Your task to perform on an android device: toggle airplane mode Image 0: 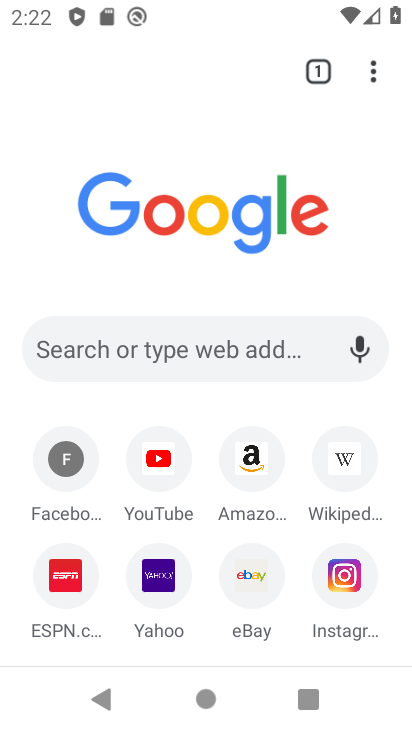
Step 0: press back button
Your task to perform on an android device: toggle airplane mode Image 1: 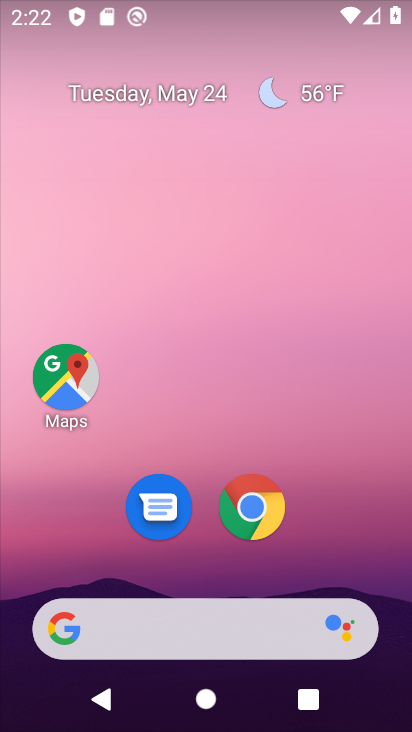
Step 1: drag from (78, 587) to (211, 120)
Your task to perform on an android device: toggle airplane mode Image 2: 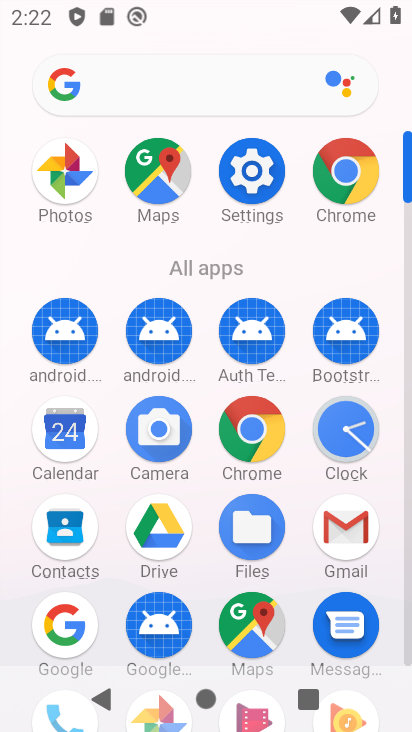
Step 2: drag from (162, 606) to (225, 432)
Your task to perform on an android device: toggle airplane mode Image 3: 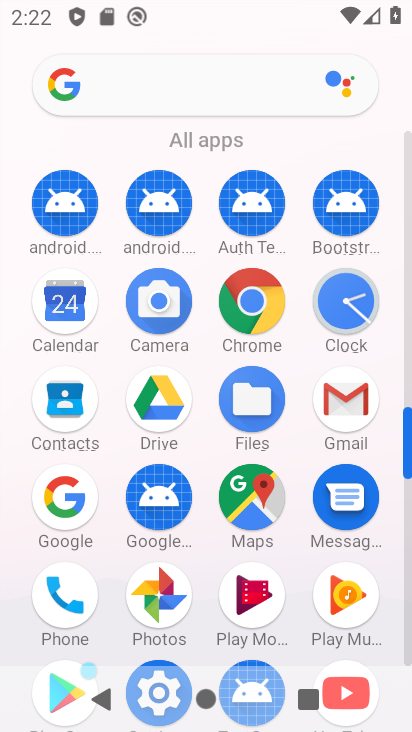
Step 3: click (148, 666)
Your task to perform on an android device: toggle airplane mode Image 4: 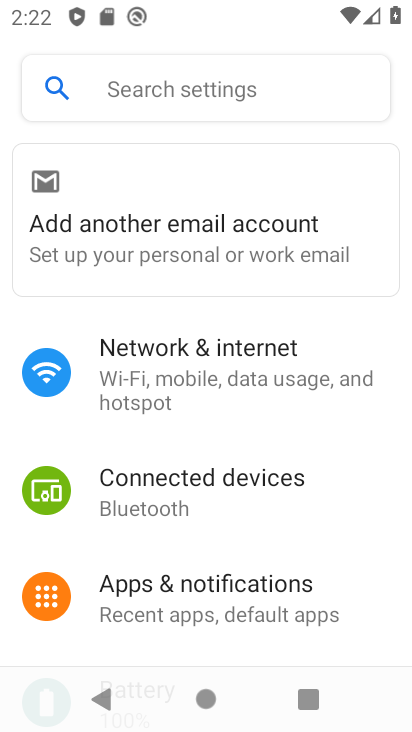
Step 4: click (245, 365)
Your task to perform on an android device: toggle airplane mode Image 5: 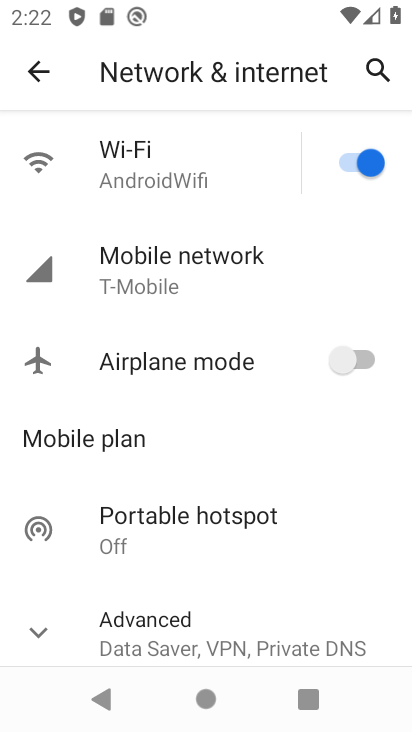
Step 5: click (382, 357)
Your task to perform on an android device: toggle airplane mode Image 6: 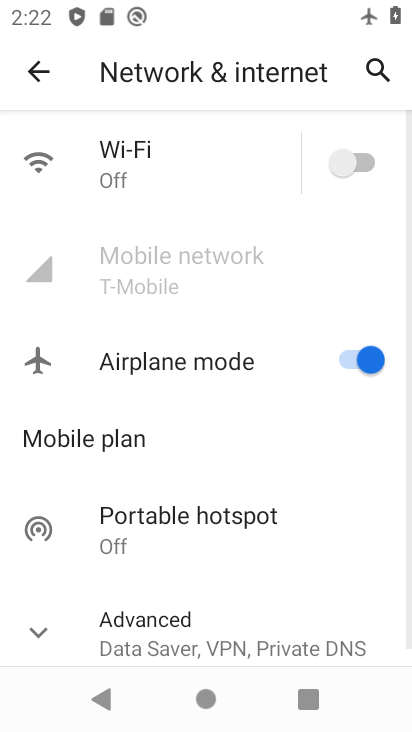
Step 6: task complete